Your task to perform on an android device: toggle improve location accuracy Image 0: 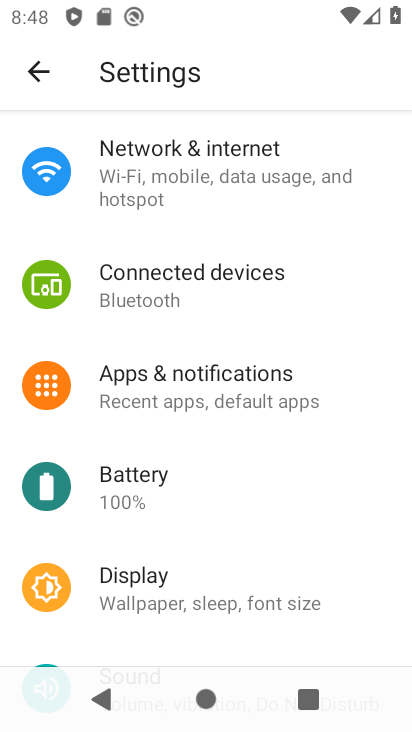
Step 0: drag from (333, 575) to (179, 72)
Your task to perform on an android device: toggle improve location accuracy Image 1: 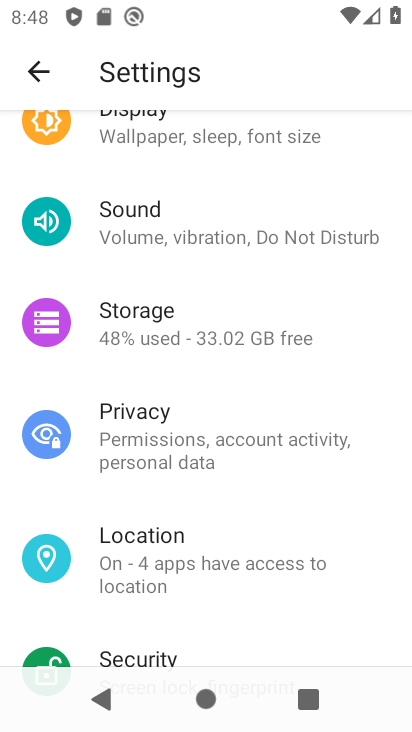
Step 1: click (194, 568)
Your task to perform on an android device: toggle improve location accuracy Image 2: 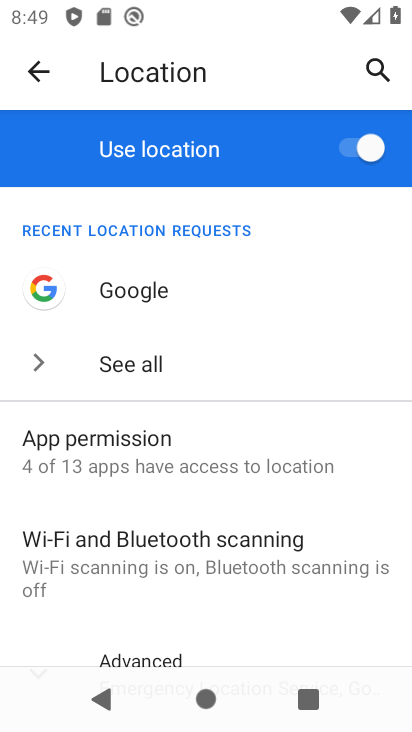
Step 2: drag from (268, 543) to (187, 144)
Your task to perform on an android device: toggle improve location accuracy Image 3: 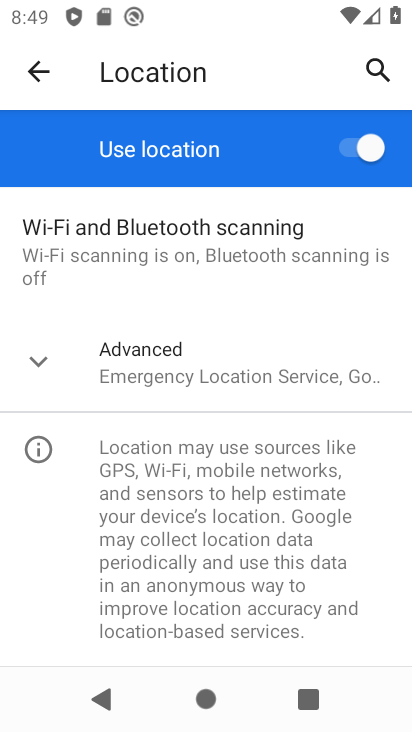
Step 3: click (65, 366)
Your task to perform on an android device: toggle improve location accuracy Image 4: 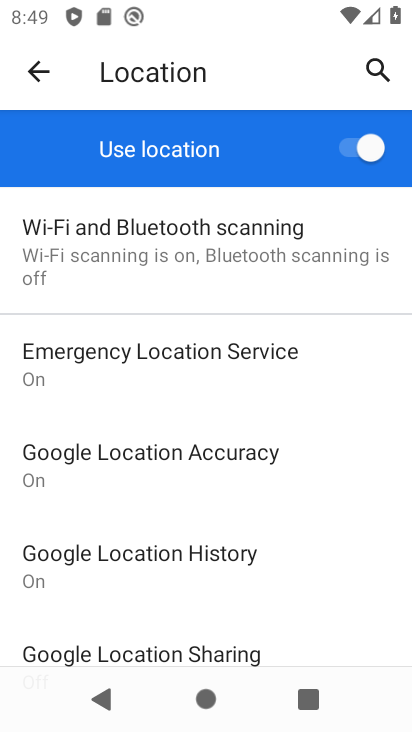
Step 4: click (117, 446)
Your task to perform on an android device: toggle improve location accuracy Image 5: 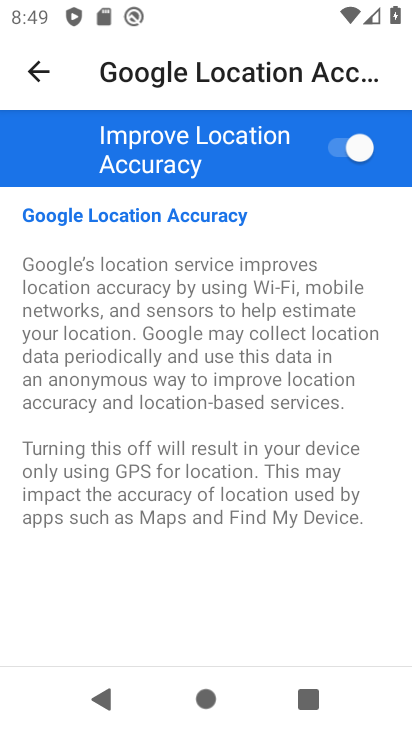
Step 5: click (345, 166)
Your task to perform on an android device: toggle improve location accuracy Image 6: 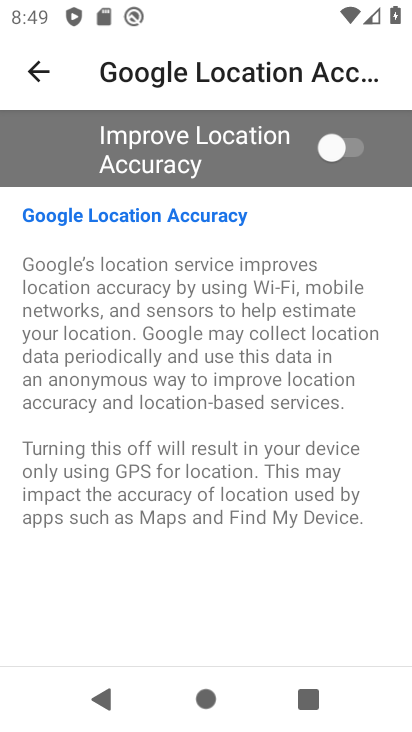
Step 6: task complete